Your task to perform on an android device: Clear all items from cart on ebay.com. Search for "razer blade" on ebay.com, select the first entry, add it to the cart, then select checkout. Image 0: 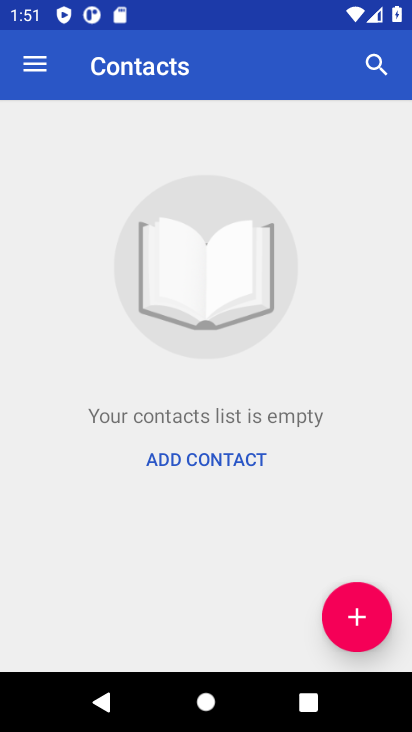
Step 0: press home button
Your task to perform on an android device: Clear all items from cart on ebay.com. Search for "razer blade" on ebay.com, select the first entry, add it to the cart, then select checkout. Image 1: 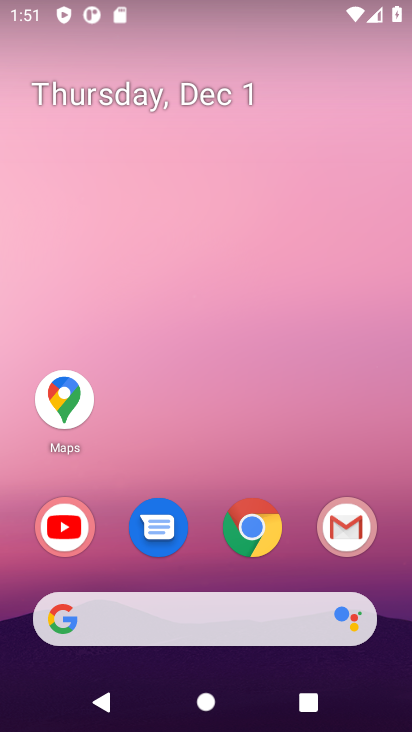
Step 1: click (247, 530)
Your task to perform on an android device: Clear all items from cart on ebay.com. Search for "razer blade" on ebay.com, select the first entry, add it to the cart, then select checkout. Image 2: 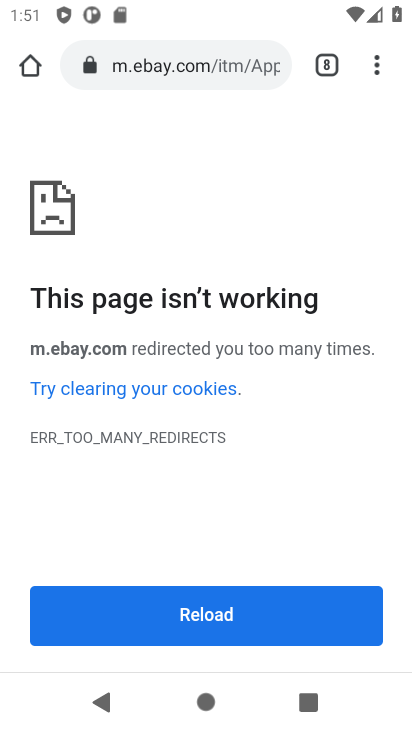
Step 2: press back button
Your task to perform on an android device: Clear all items from cart on ebay.com. Search for "razer blade" on ebay.com, select the first entry, add it to the cart, then select checkout. Image 3: 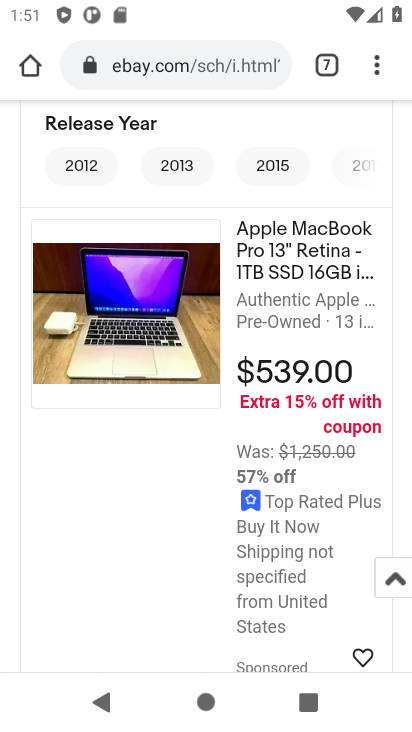
Step 3: drag from (229, 207) to (201, 545)
Your task to perform on an android device: Clear all items from cart on ebay.com. Search for "razer blade" on ebay.com, select the first entry, add it to the cart, then select checkout. Image 4: 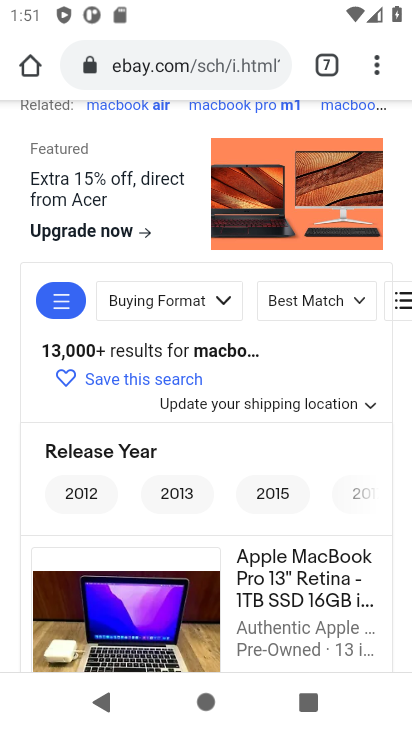
Step 4: drag from (346, 175) to (310, 534)
Your task to perform on an android device: Clear all items from cart on ebay.com. Search for "razer blade" on ebay.com, select the first entry, add it to the cart, then select checkout. Image 5: 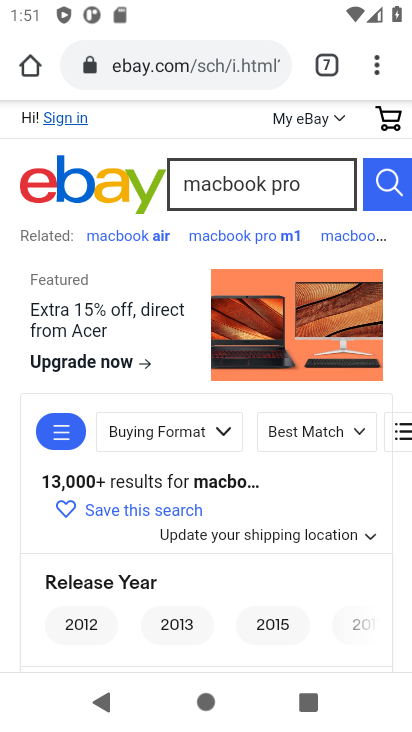
Step 5: click (385, 125)
Your task to perform on an android device: Clear all items from cart on ebay.com. Search for "razer blade" on ebay.com, select the first entry, add it to the cart, then select checkout. Image 6: 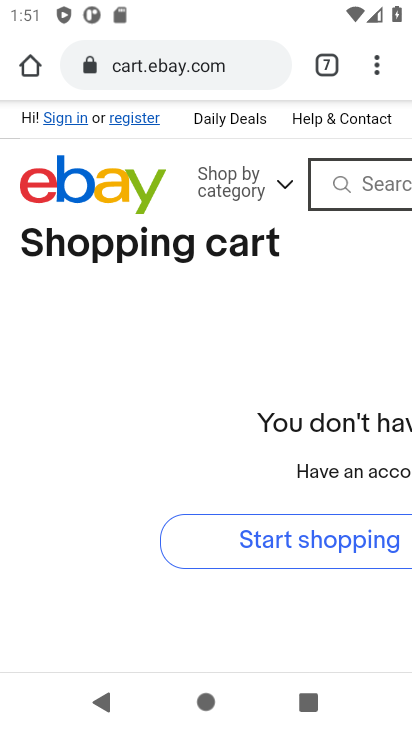
Step 6: click (333, 180)
Your task to perform on an android device: Clear all items from cart on ebay.com. Search for "razer blade" on ebay.com, select the first entry, add it to the cart, then select checkout. Image 7: 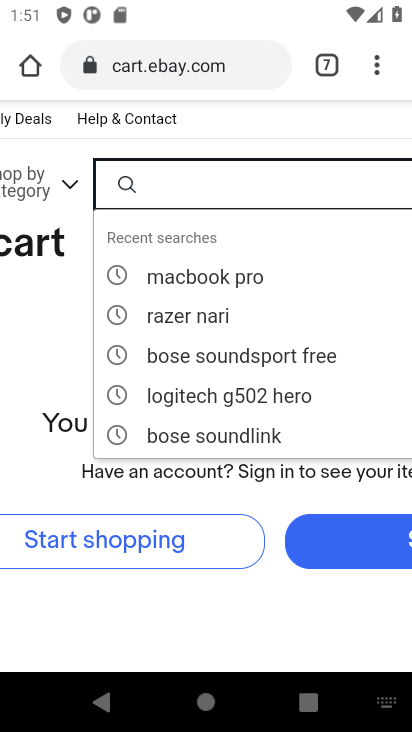
Step 7: type "razer blade"
Your task to perform on an android device: Clear all items from cart on ebay.com. Search for "razer blade" on ebay.com, select the first entry, add it to the cart, then select checkout. Image 8: 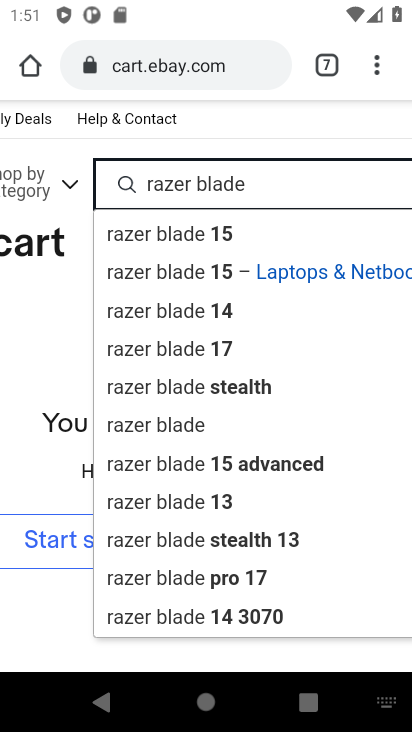
Step 8: click (152, 425)
Your task to perform on an android device: Clear all items from cart on ebay.com. Search for "razer blade" on ebay.com, select the first entry, add it to the cart, then select checkout. Image 9: 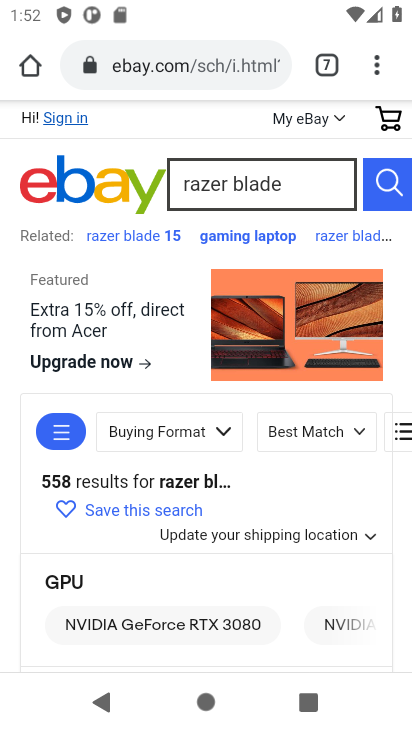
Step 9: drag from (160, 501) to (162, 211)
Your task to perform on an android device: Clear all items from cart on ebay.com. Search for "razer blade" on ebay.com, select the first entry, add it to the cart, then select checkout. Image 10: 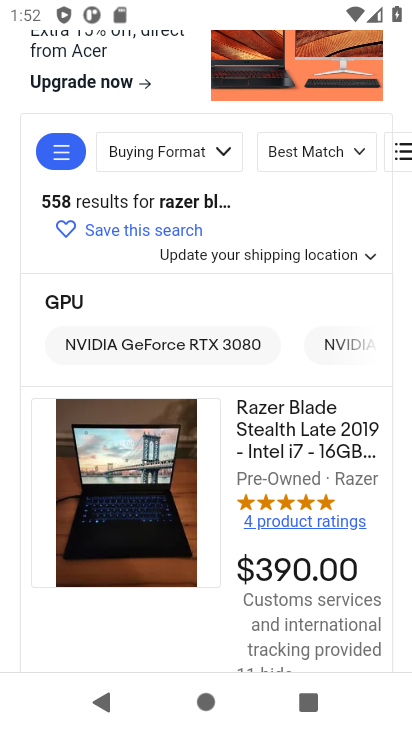
Step 10: drag from (161, 505) to (162, 328)
Your task to perform on an android device: Clear all items from cart on ebay.com. Search for "razer blade" on ebay.com, select the first entry, add it to the cart, then select checkout. Image 11: 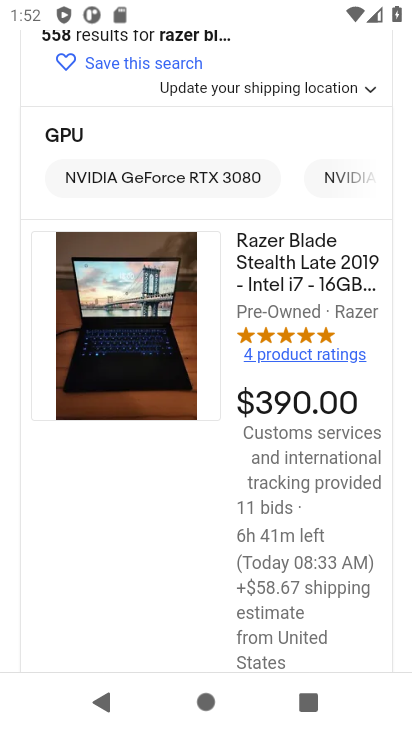
Step 11: click (302, 272)
Your task to perform on an android device: Clear all items from cart on ebay.com. Search for "razer blade" on ebay.com, select the first entry, add it to the cart, then select checkout. Image 12: 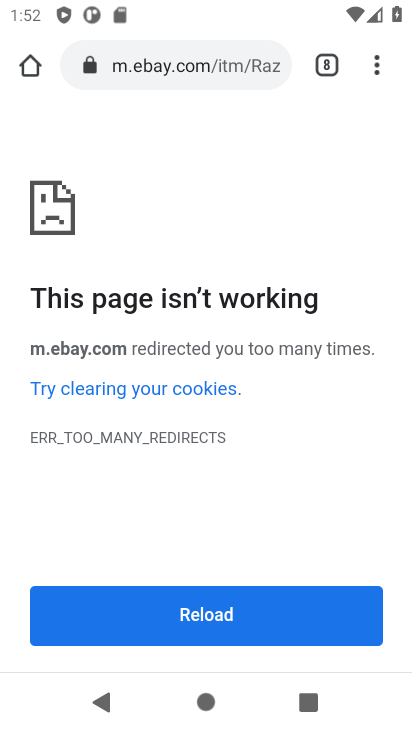
Step 12: task complete